Your task to perform on an android device: Open sound settings Image 0: 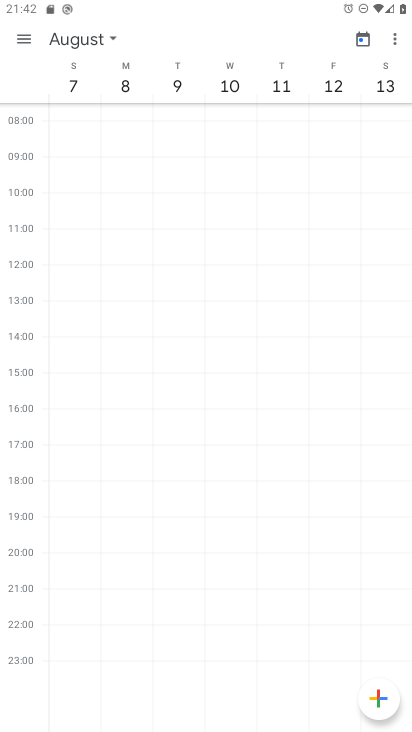
Step 0: press home button
Your task to perform on an android device: Open sound settings Image 1: 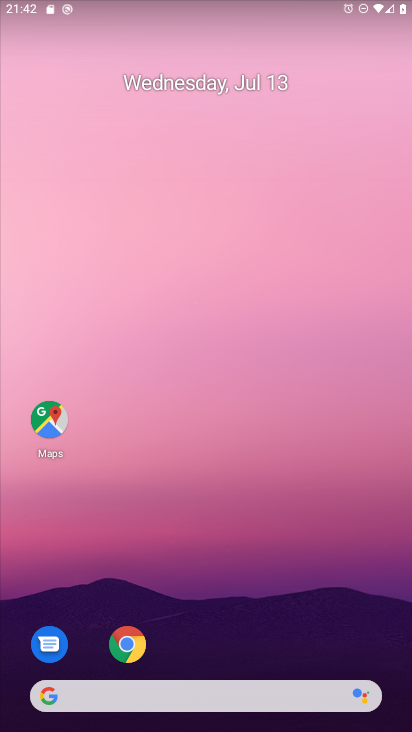
Step 1: drag from (275, 597) to (290, 178)
Your task to perform on an android device: Open sound settings Image 2: 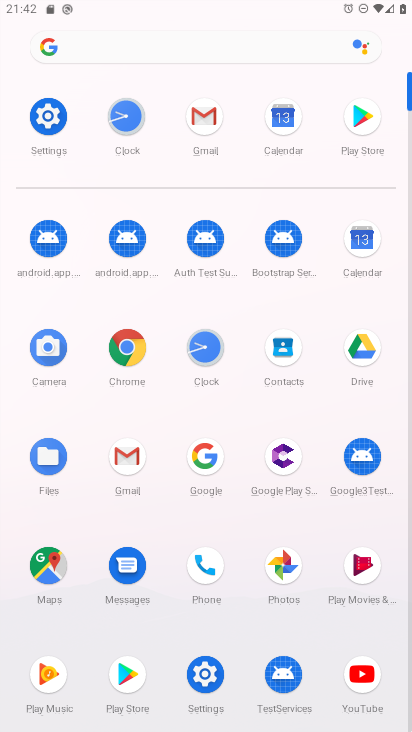
Step 2: click (50, 122)
Your task to perform on an android device: Open sound settings Image 3: 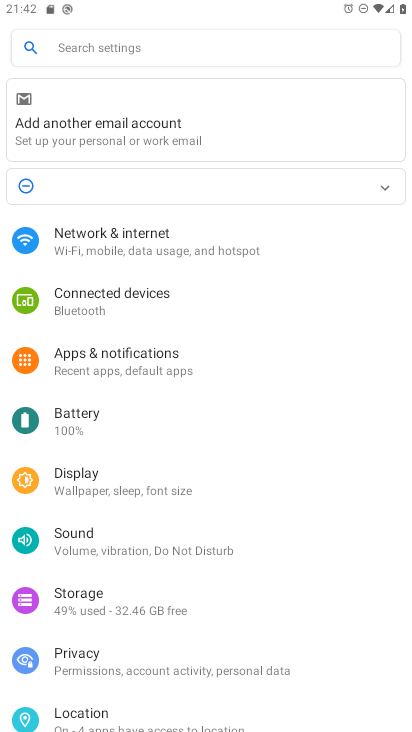
Step 3: click (86, 520)
Your task to perform on an android device: Open sound settings Image 4: 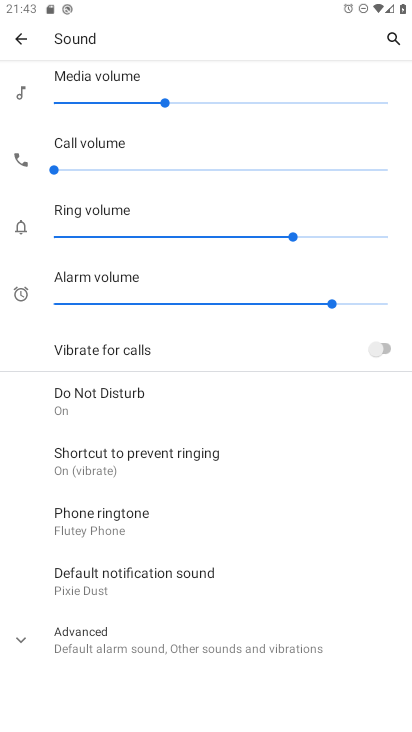
Step 4: task complete